Your task to perform on an android device: Open my contact list Image 0: 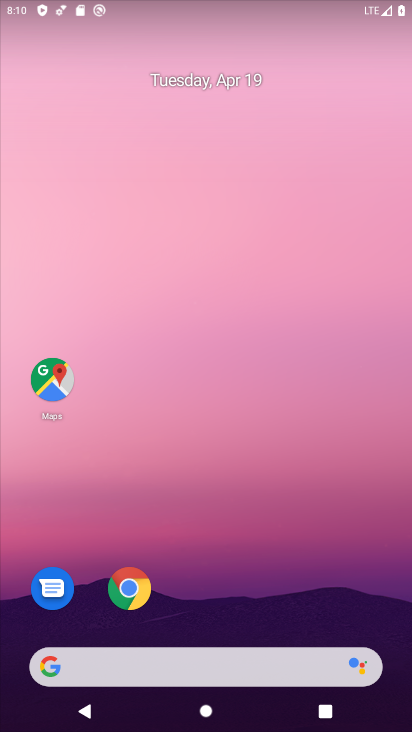
Step 0: drag from (208, 614) to (222, 76)
Your task to perform on an android device: Open my contact list Image 1: 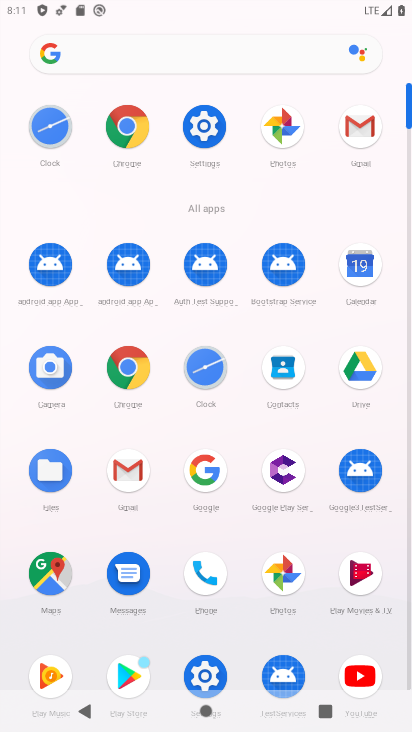
Step 1: click (287, 362)
Your task to perform on an android device: Open my contact list Image 2: 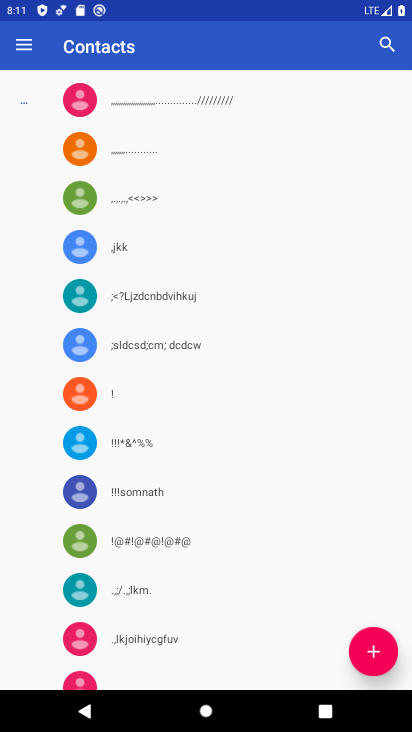
Step 2: task complete